Your task to perform on an android device: Turn off the flashlight Image 0: 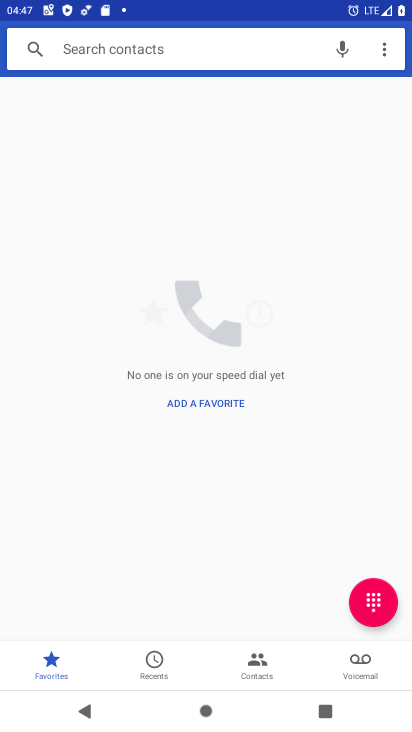
Step 0: press back button
Your task to perform on an android device: Turn off the flashlight Image 1: 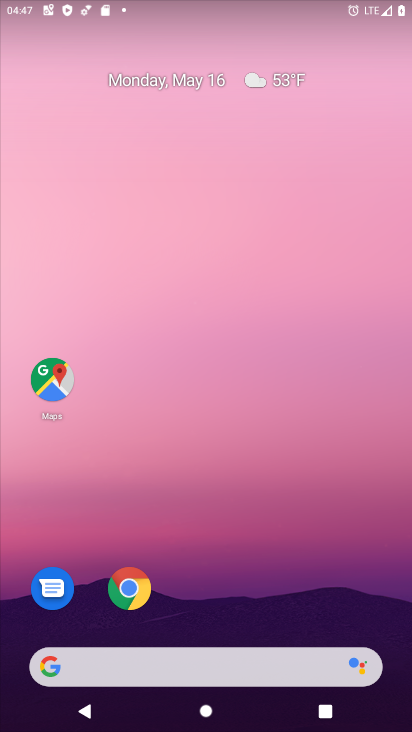
Step 1: drag from (248, 462) to (215, 3)
Your task to perform on an android device: Turn off the flashlight Image 2: 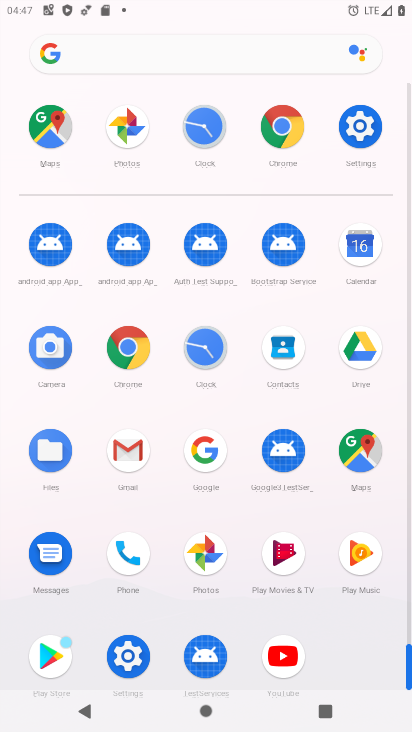
Step 2: drag from (20, 533) to (23, 208)
Your task to perform on an android device: Turn off the flashlight Image 3: 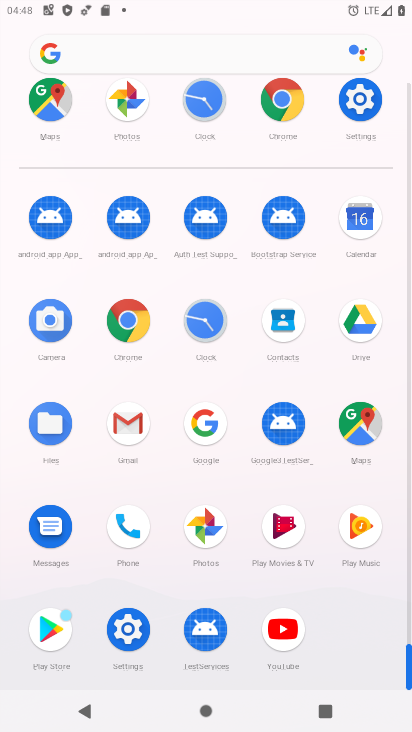
Step 3: click (360, 98)
Your task to perform on an android device: Turn off the flashlight Image 4: 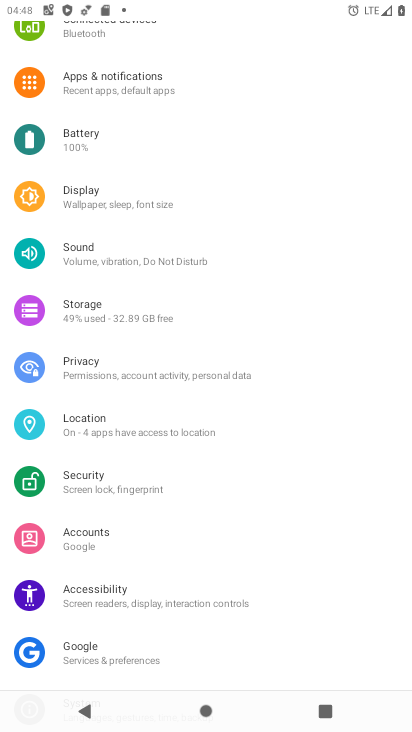
Step 4: drag from (289, 110) to (246, 567)
Your task to perform on an android device: Turn off the flashlight Image 5: 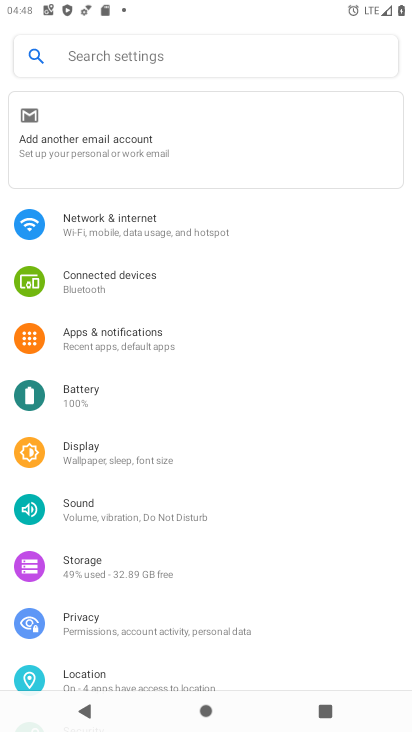
Step 5: click (221, 225)
Your task to perform on an android device: Turn off the flashlight Image 6: 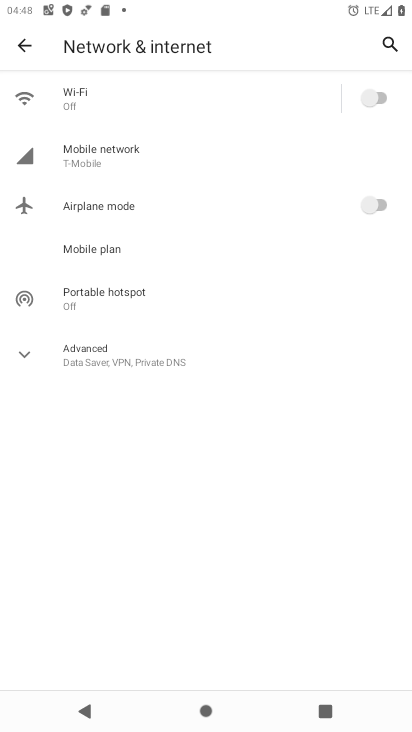
Step 6: click (82, 358)
Your task to perform on an android device: Turn off the flashlight Image 7: 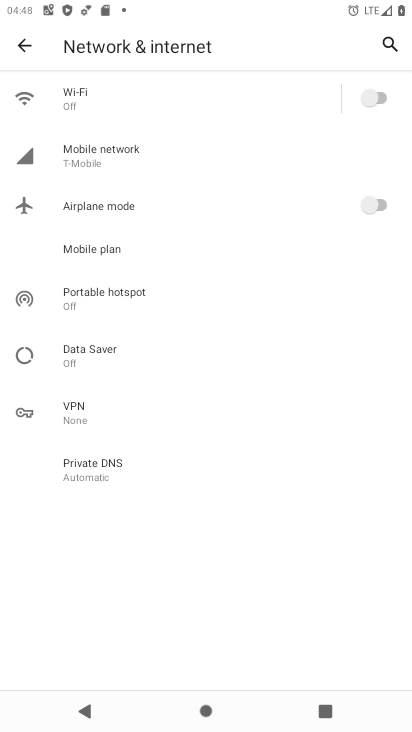
Step 7: task complete